Your task to perform on an android device: toggle sleep mode Image 0: 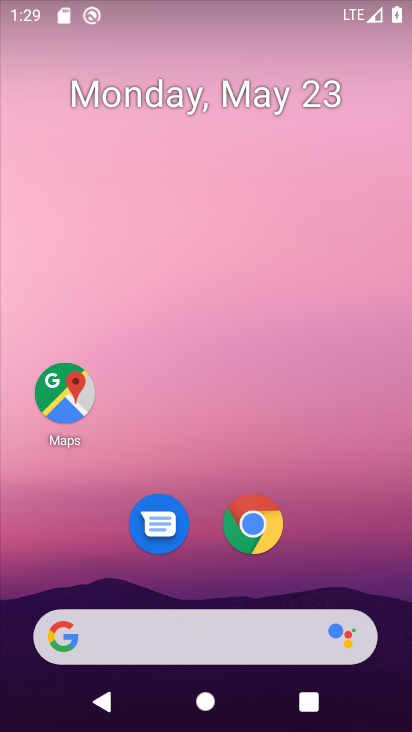
Step 0: drag from (215, 443) to (203, 0)
Your task to perform on an android device: toggle sleep mode Image 1: 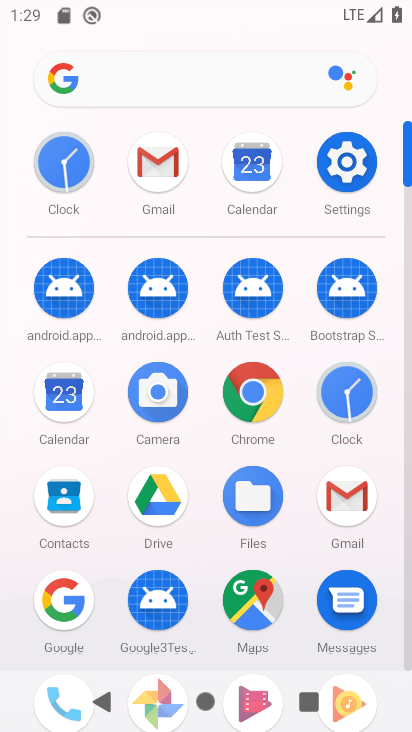
Step 1: click (353, 156)
Your task to perform on an android device: toggle sleep mode Image 2: 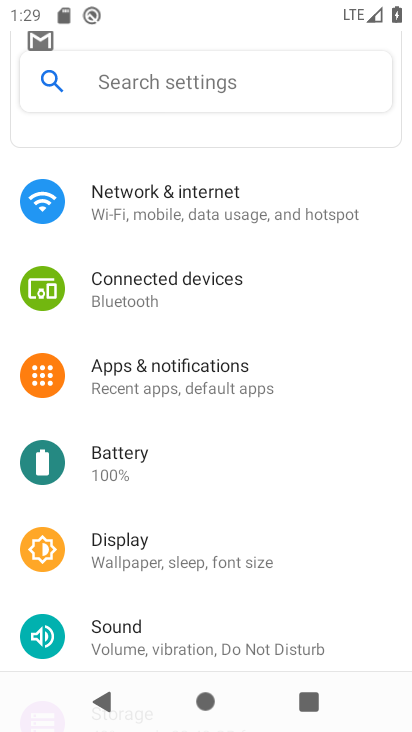
Step 2: click (172, 551)
Your task to perform on an android device: toggle sleep mode Image 3: 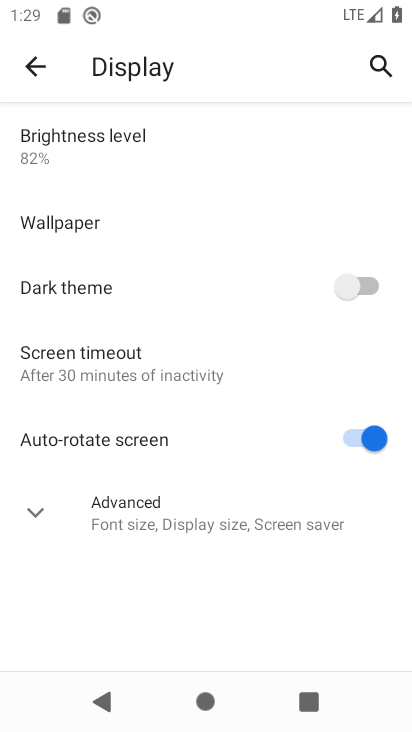
Step 3: click (37, 516)
Your task to perform on an android device: toggle sleep mode Image 4: 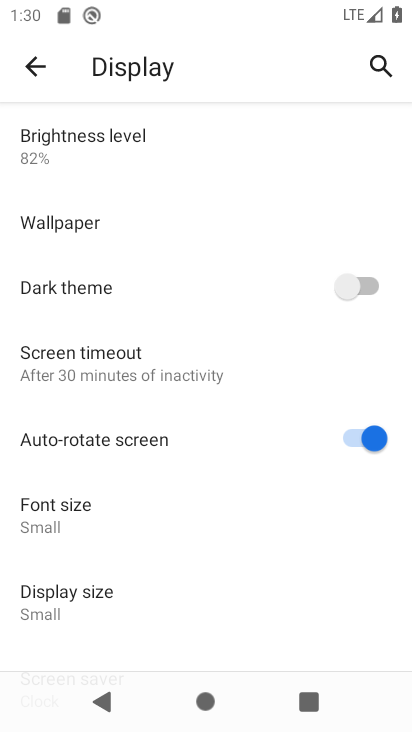
Step 4: task complete